Your task to perform on an android device: turn off data saver in the chrome app Image 0: 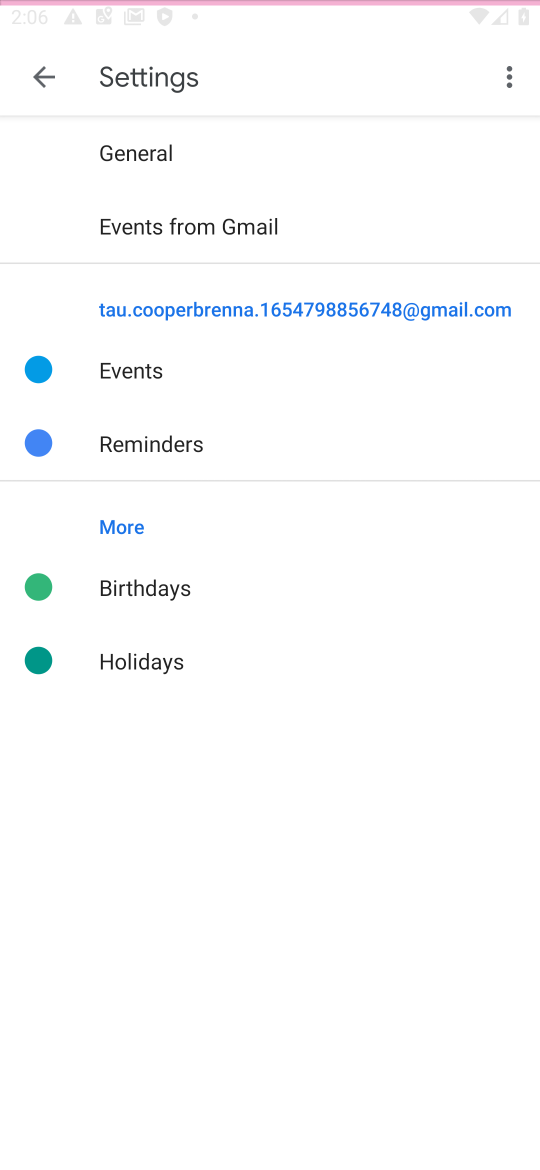
Step 0: press home button
Your task to perform on an android device: turn off data saver in the chrome app Image 1: 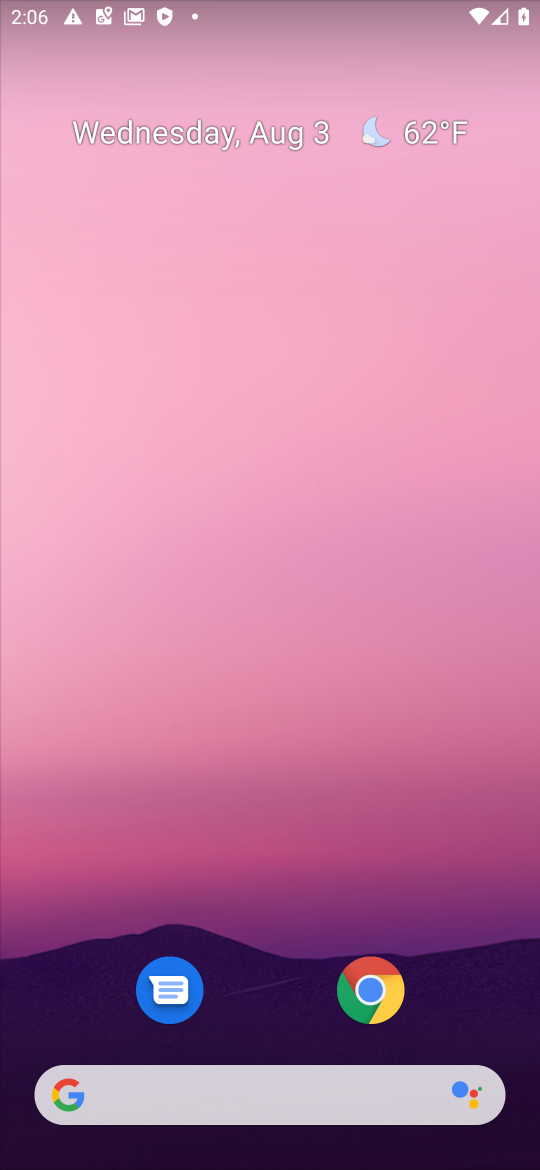
Step 1: click (355, 986)
Your task to perform on an android device: turn off data saver in the chrome app Image 2: 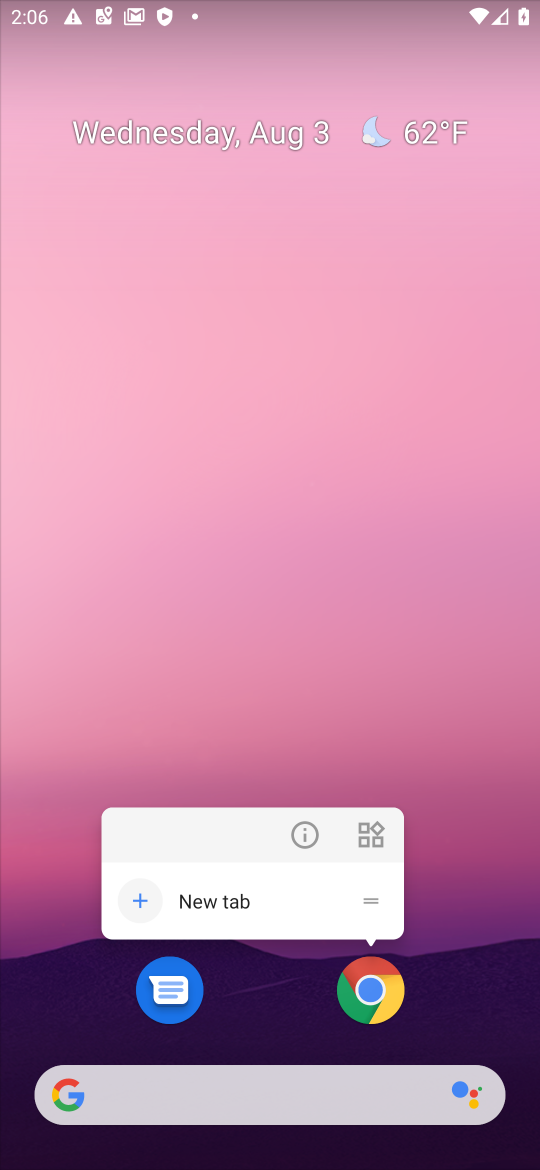
Step 2: click (367, 994)
Your task to perform on an android device: turn off data saver in the chrome app Image 3: 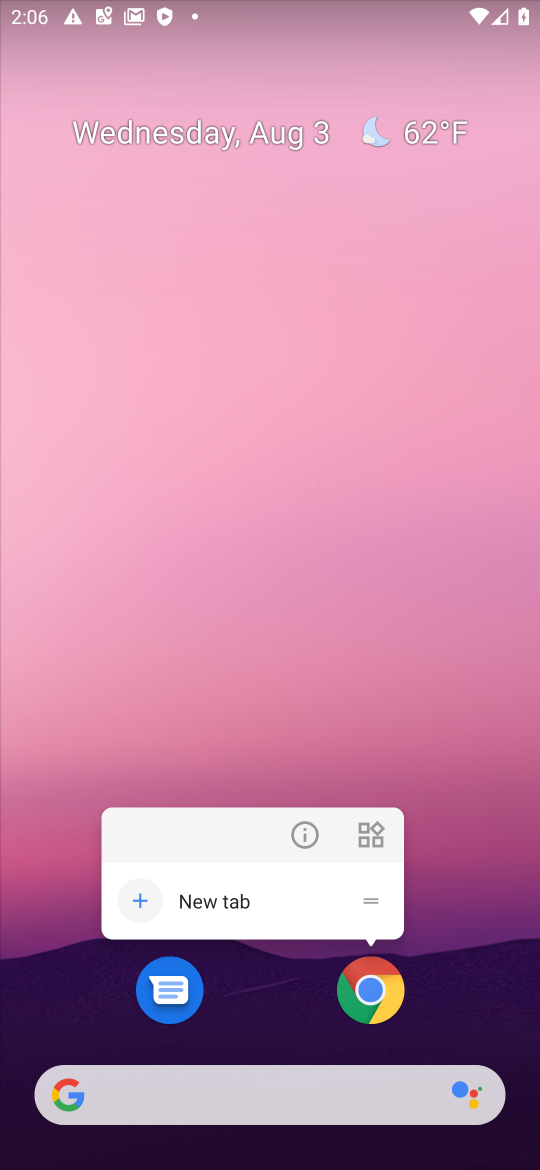
Step 3: click (378, 986)
Your task to perform on an android device: turn off data saver in the chrome app Image 4: 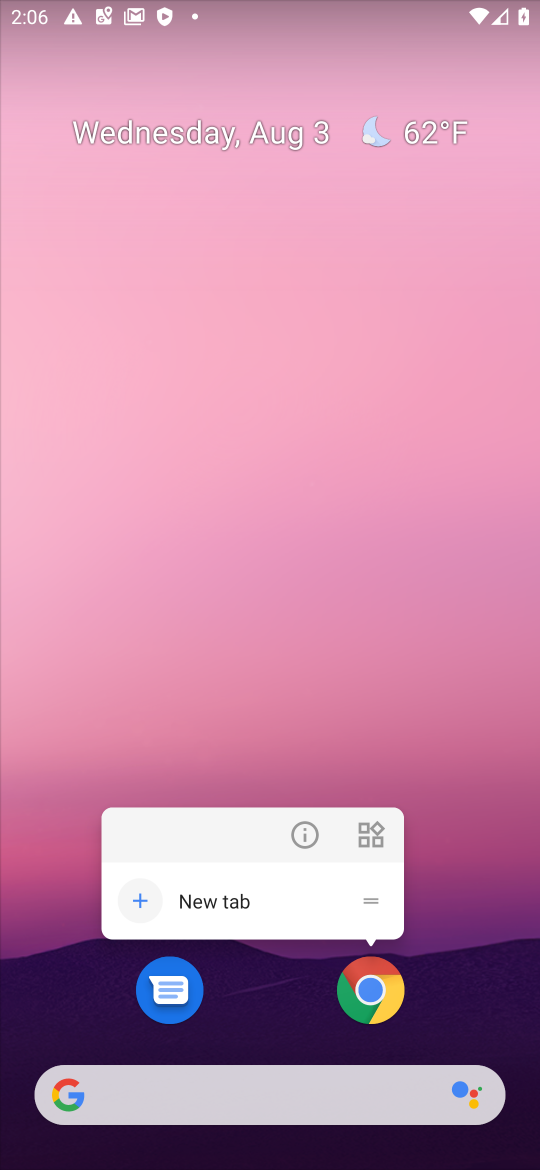
Step 4: click (373, 995)
Your task to perform on an android device: turn off data saver in the chrome app Image 5: 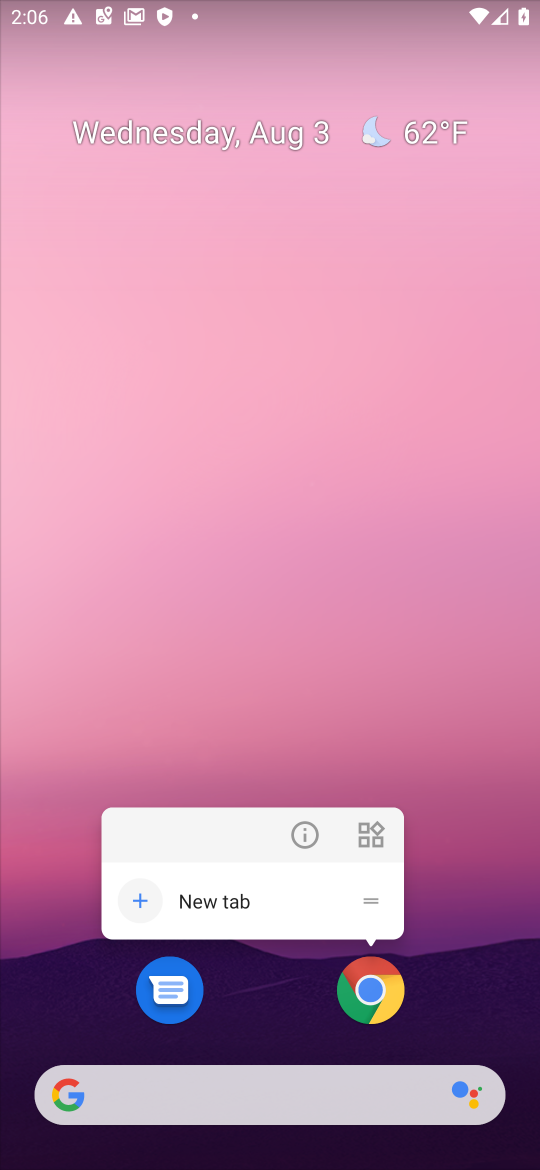
Step 5: click (369, 990)
Your task to perform on an android device: turn off data saver in the chrome app Image 6: 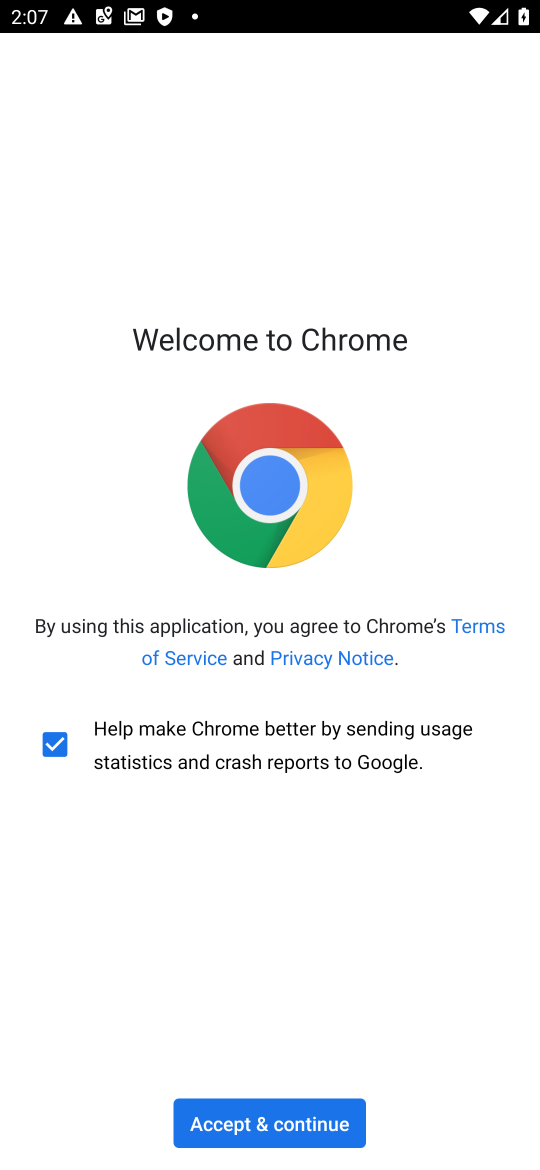
Step 6: drag from (293, 1126) to (376, 1126)
Your task to perform on an android device: turn off data saver in the chrome app Image 7: 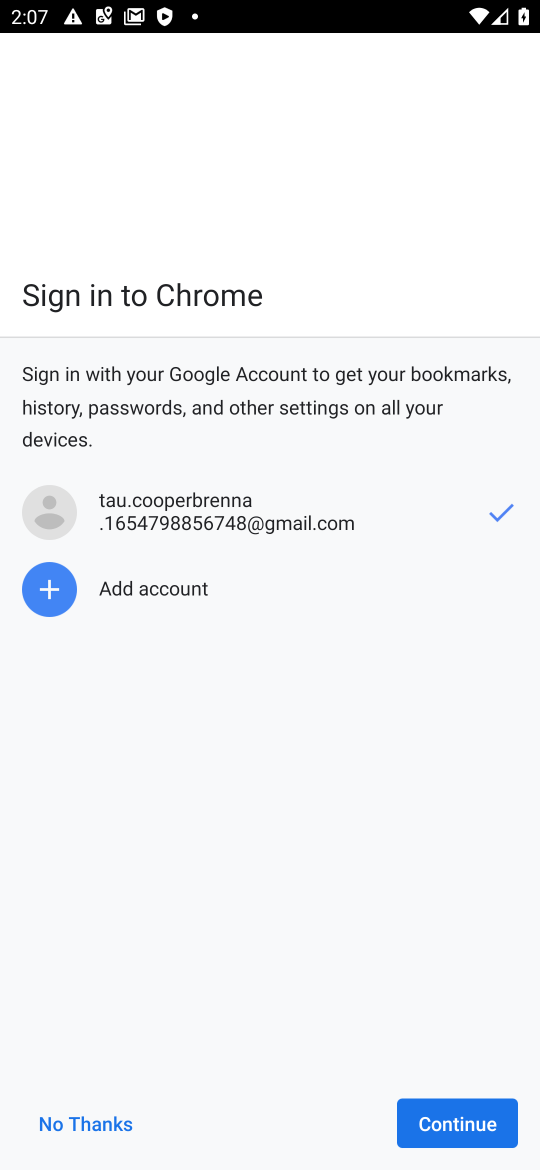
Step 7: click (462, 1115)
Your task to perform on an android device: turn off data saver in the chrome app Image 8: 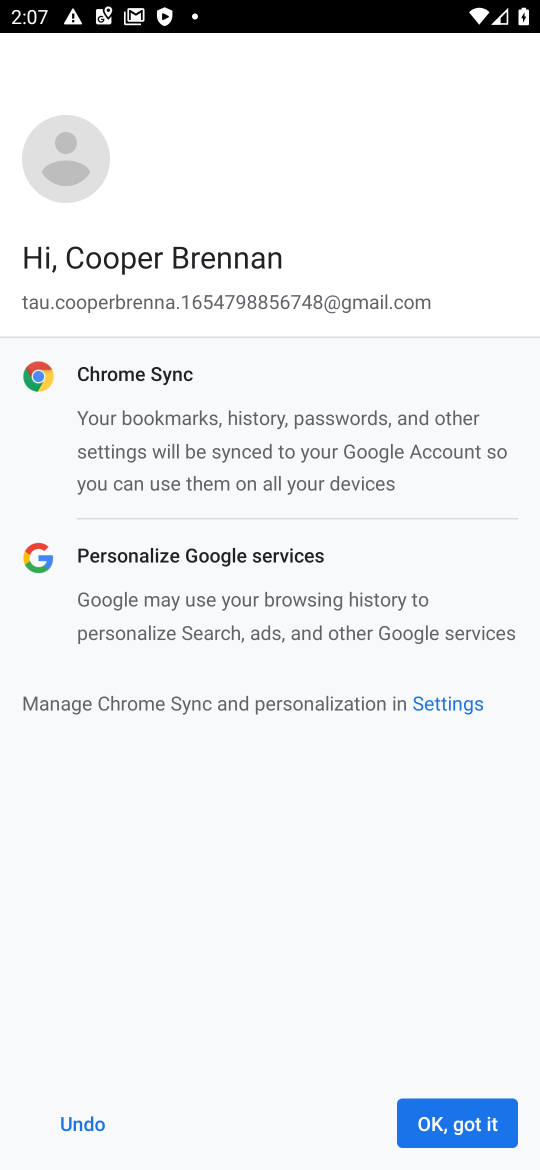
Step 8: click (462, 1115)
Your task to perform on an android device: turn off data saver in the chrome app Image 9: 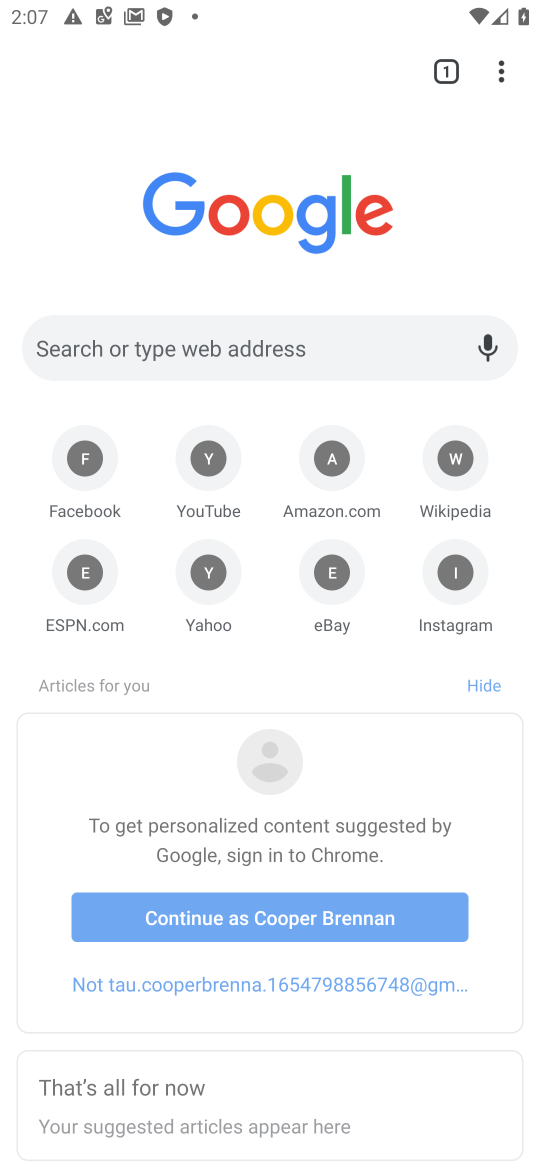
Step 9: click (506, 64)
Your task to perform on an android device: turn off data saver in the chrome app Image 10: 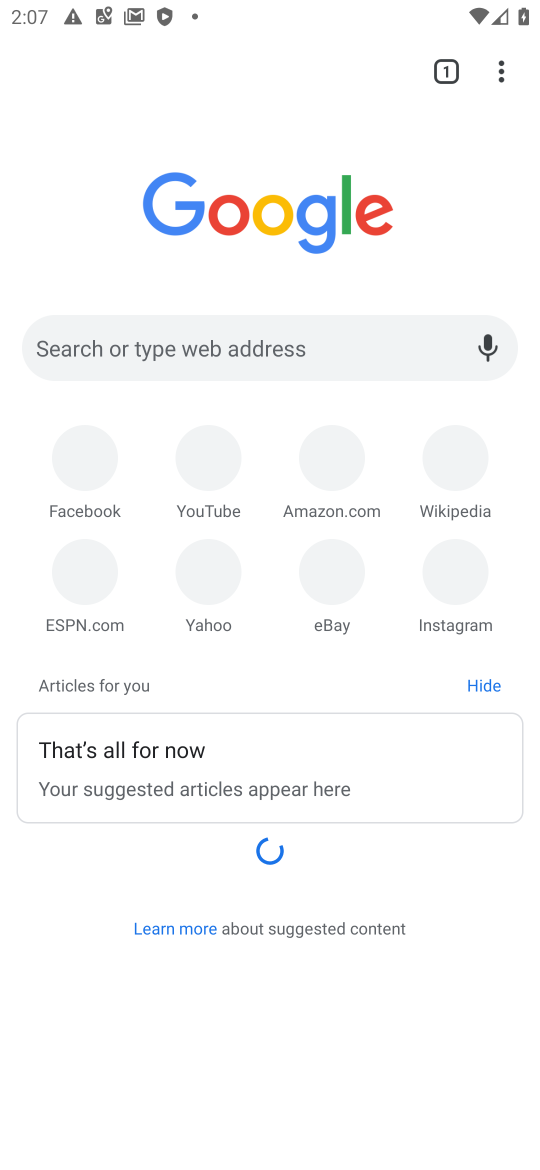
Step 10: click (498, 79)
Your task to perform on an android device: turn off data saver in the chrome app Image 11: 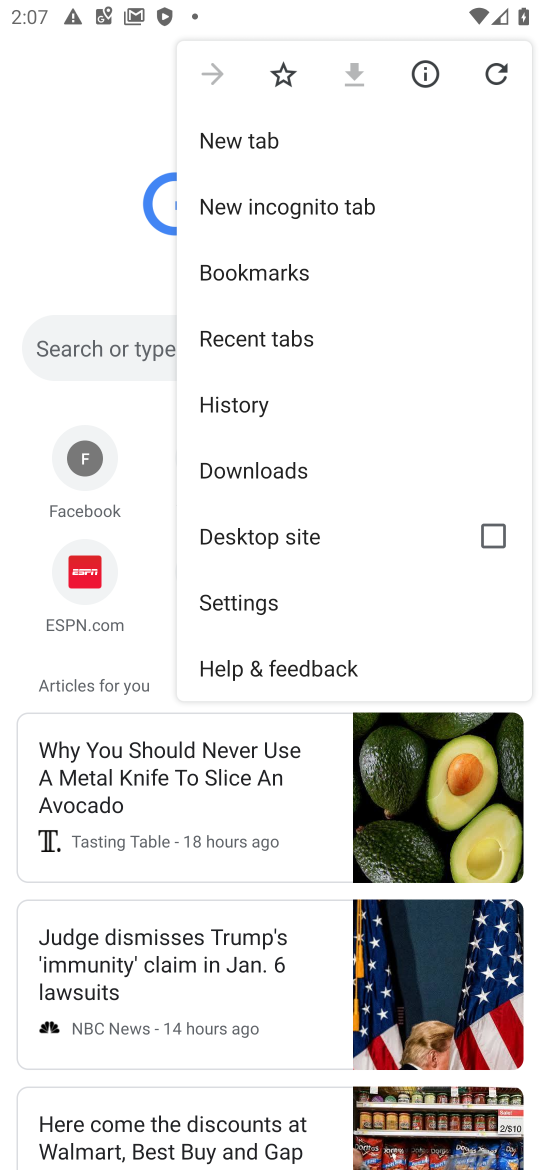
Step 11: click (246, 598)
Your task to perform on an android device: turn off data saver in the chrome app Image 12: 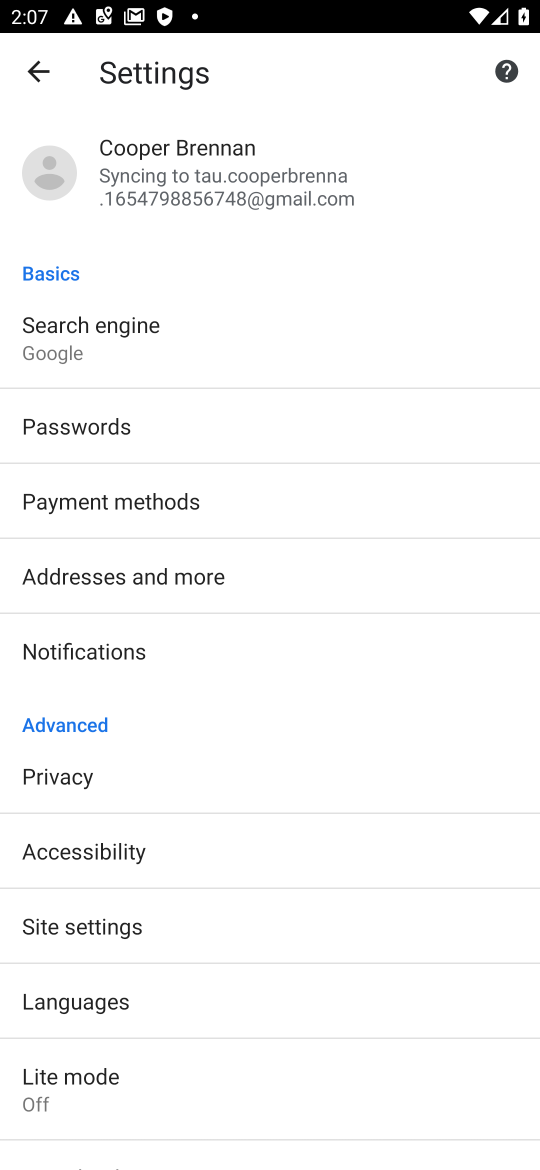
Step 12: click (82, 1069)
Your task to perform on an android device: turn off data saver in the chrome app Image 13: 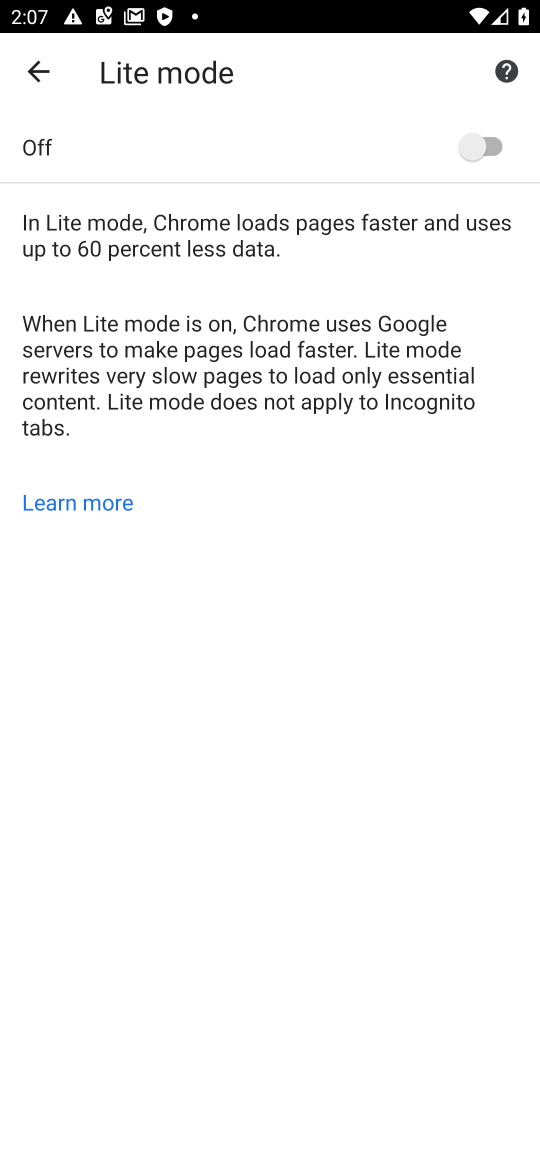
Step 13: task complete